Your task to perform on an android device: turn off wifi Image 0: 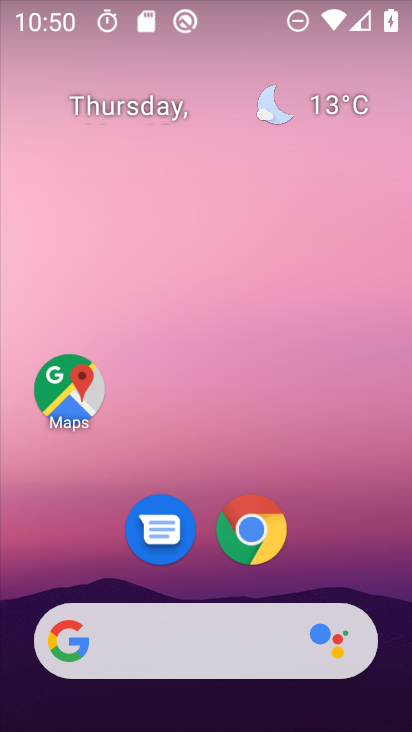
Step 0: drag from (359, 531) to (260, 166)
Your task to perform on an android device: turn off wifi Image 1: 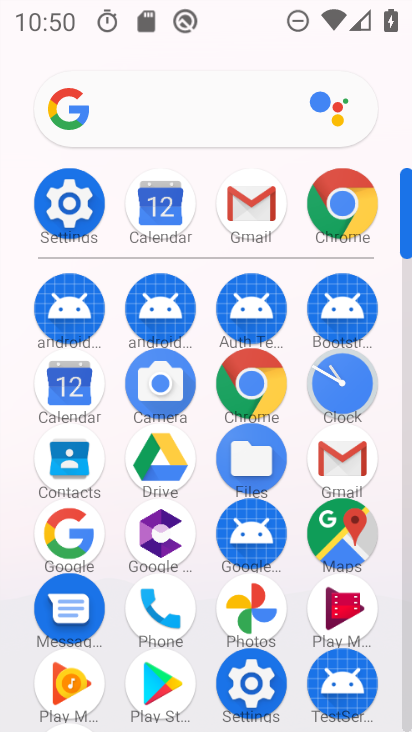
Step 1: click (72, 229)
Your task to perform on an android device: turn off wifi Image 2: 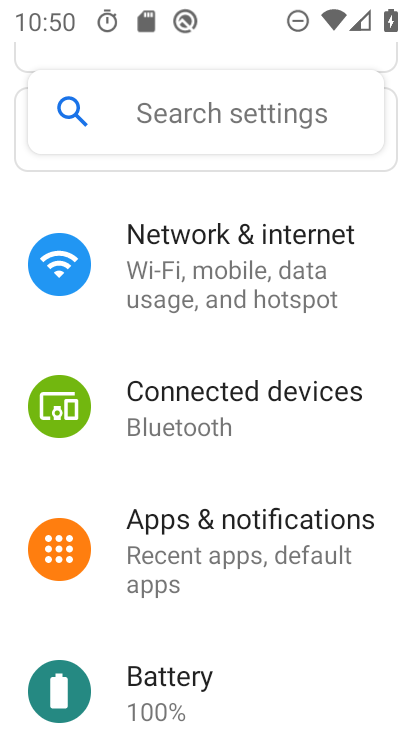
Step 2: click (175, 274)
Your task to perform on an android device: turn off wifi Image 3: 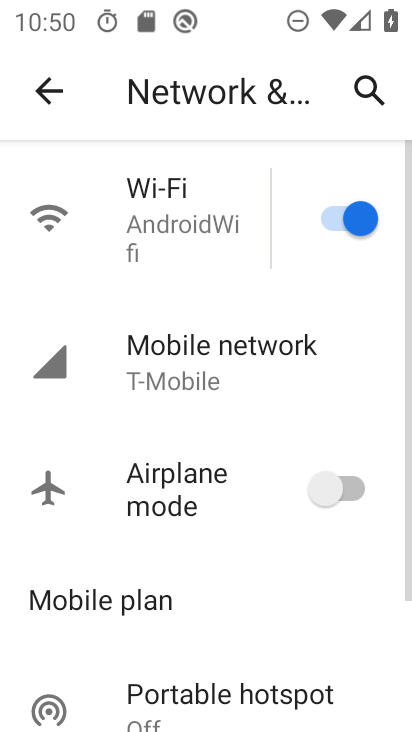
Step 3: click (360, 211)
Your task to perform on an android device: turn off wifi Image 4: 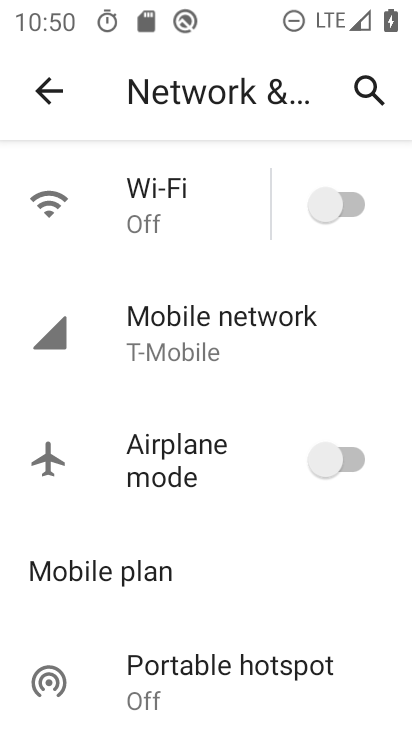
Step 4: task complete